Your task to perform on an android device: Open privacy settings Image 0: 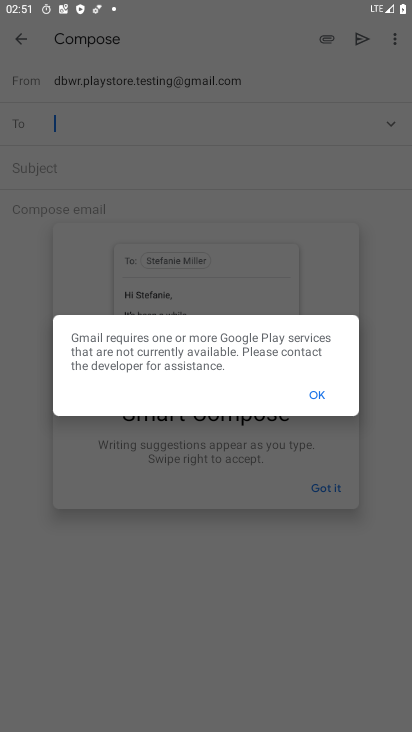
Step 0: press home button
Your task to perform on an android device: Open privacy settings Image 1: 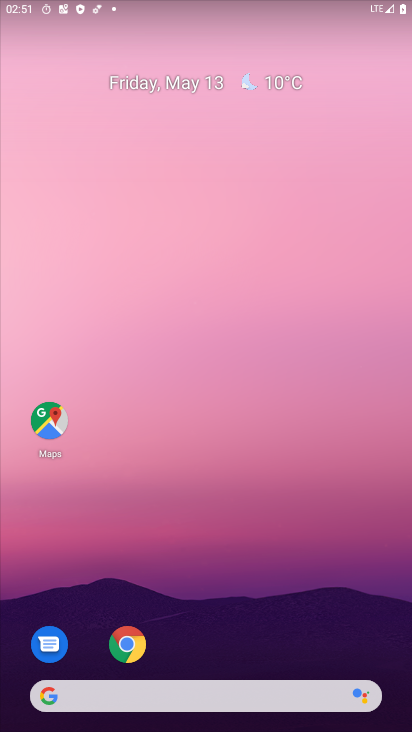
Step 1: drag from (284, 693) to (403, 13)
Your task to perform on an android device: Open privacy settings Image 2: 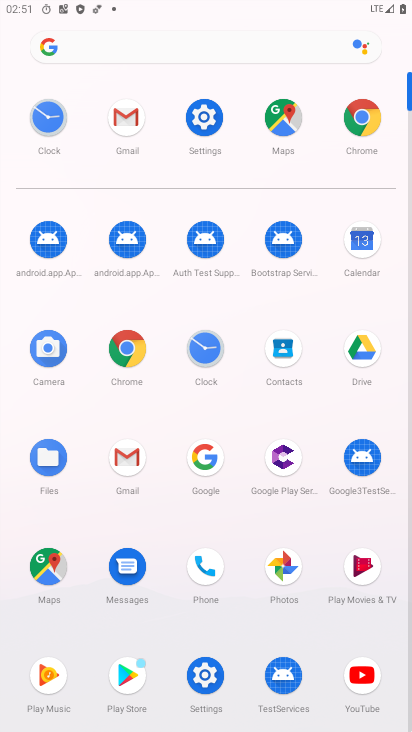
Step 2: click (210, 125)
Your task to perform on an android device: Open privacy settings Image 3: 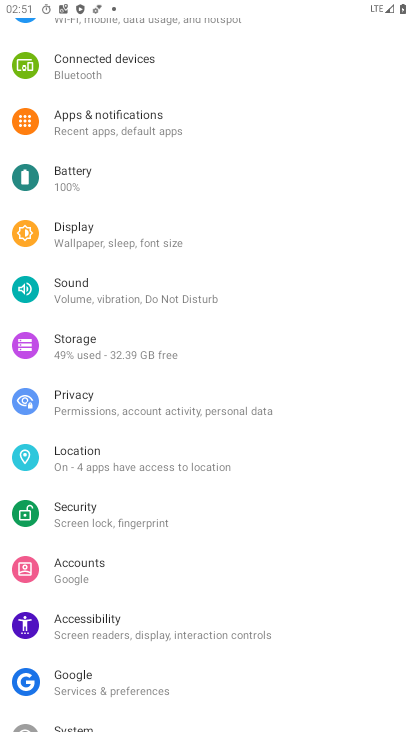
Step 3: click (116, 401)
Your task to perform on an android device: Open privacy settings Image 4: 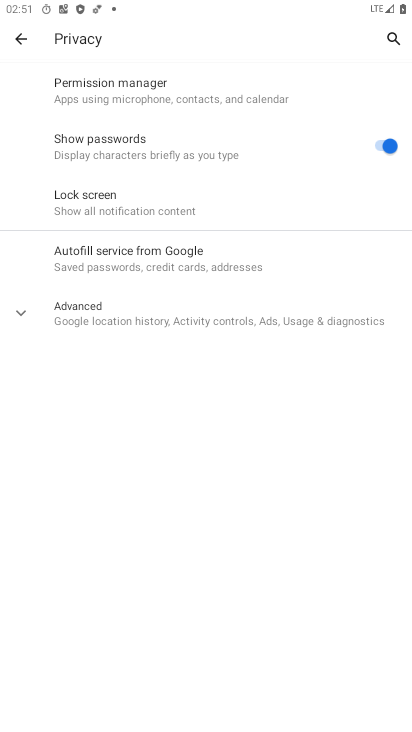
Step 4: task complete